Your task to perform on an android device: What is the speed of a rocket? Image 0: 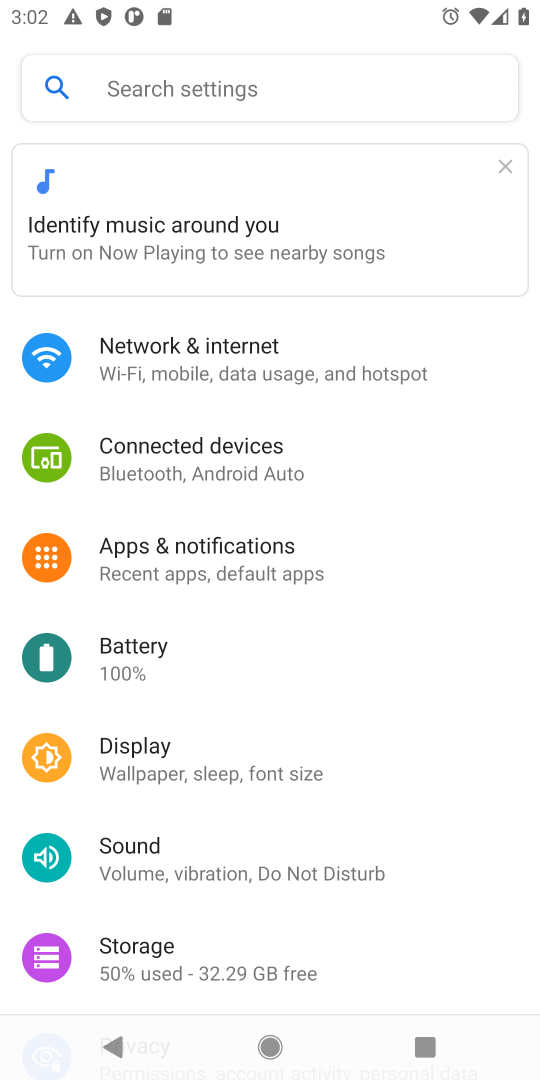
Step 0: press home button
Your task to perform on an android device: What is the speed of a rocket? Image 1: 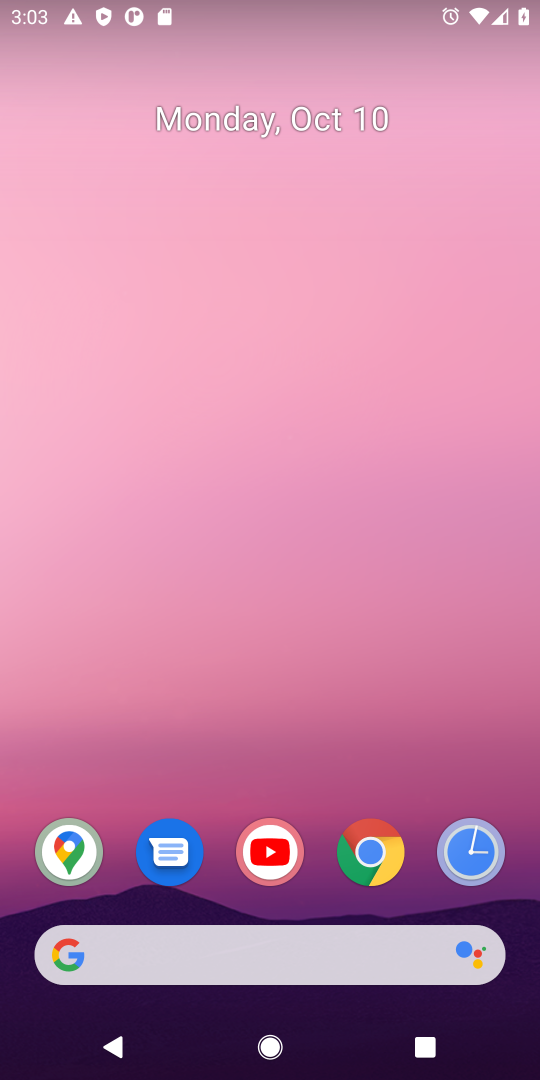
Step 1: click (205, 954)
Your task to perform on an android device: What is the speed of a rocket? Image 2: 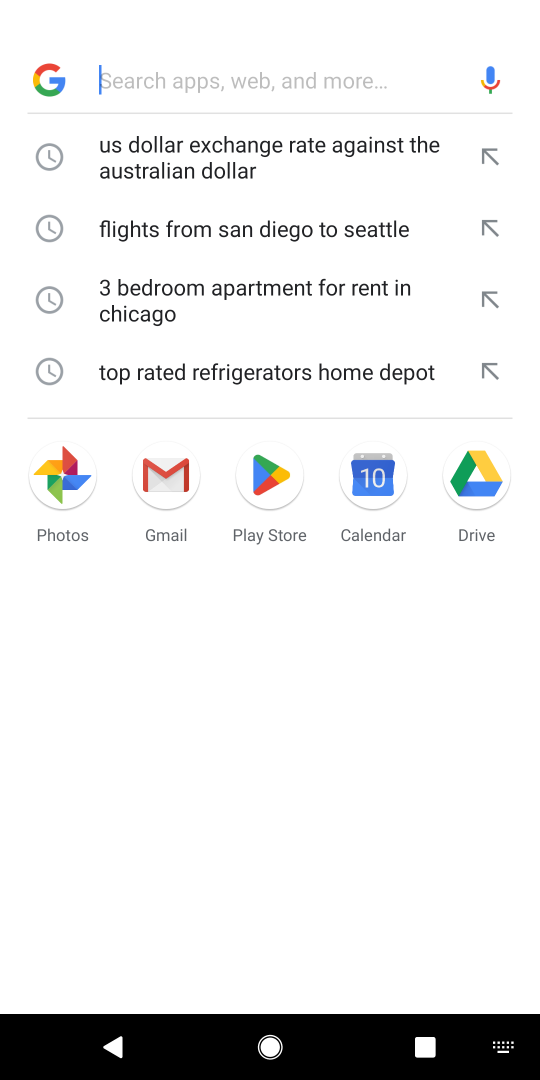
Step 2: type "What is the speed of a rocket?"
Your task to perform on an android device: What is the speed of a rocket? Image 3: 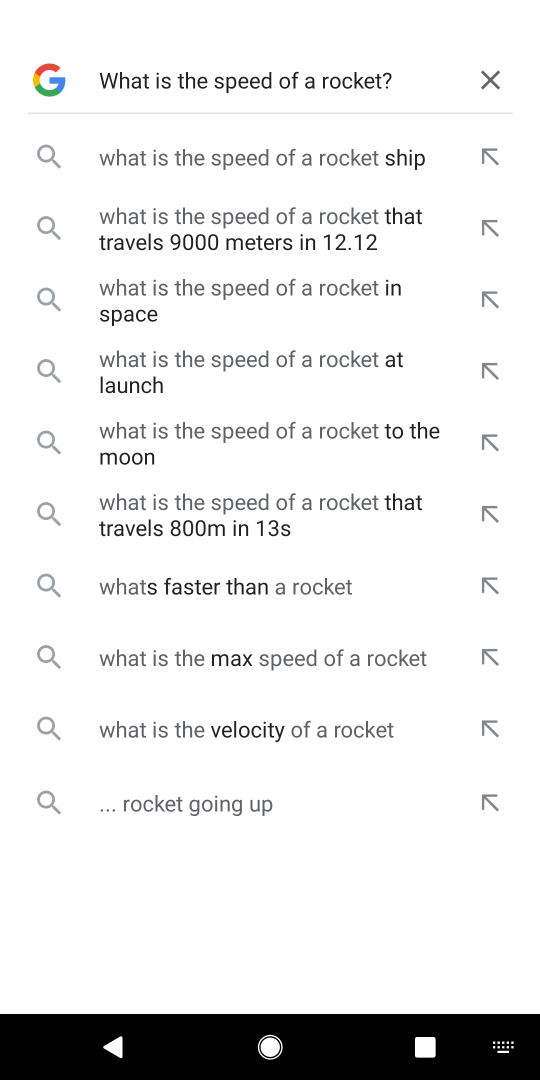
Step 3: click (408, 148)
Your task to perform on an android device: What is the speed of a rocket? Image 4: 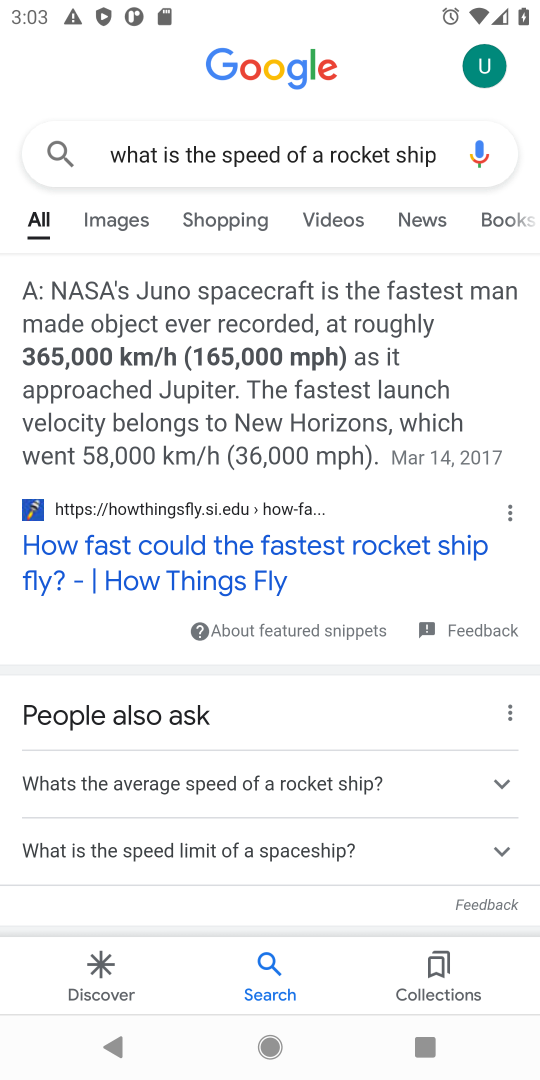
Step 4: task complete